Your task to perform on an android device: Open the map Image 0: 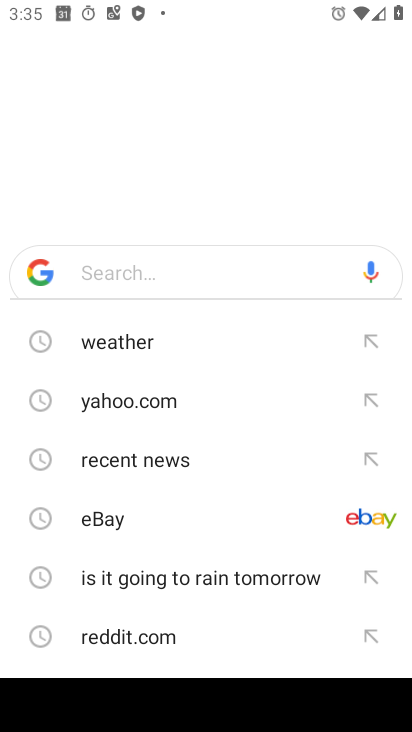
Step 0: press home button
Your task to perform on an android device: Open the map Image 1: 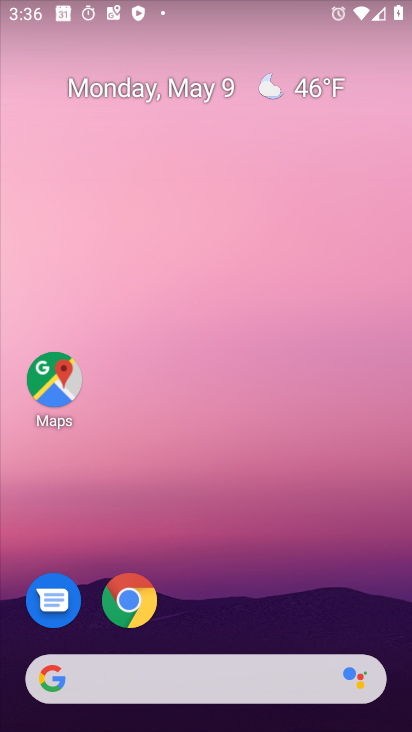
Step 1: click (49, 386)
Your task to perform on an android device: Open the map Image 2: 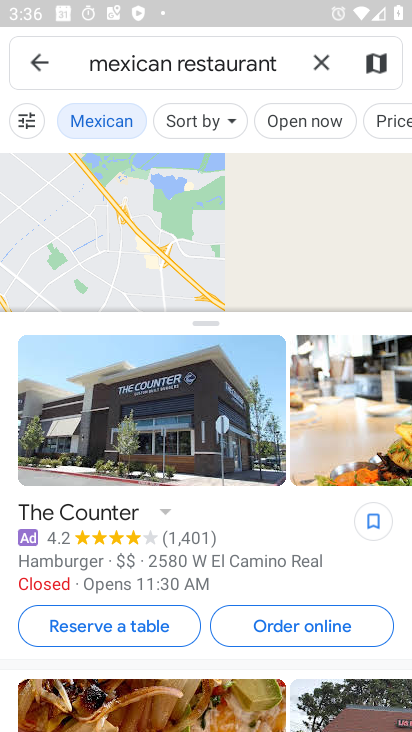
Step 2: task complete